Your task to perform on an android device: Go to sound settings Image 0: 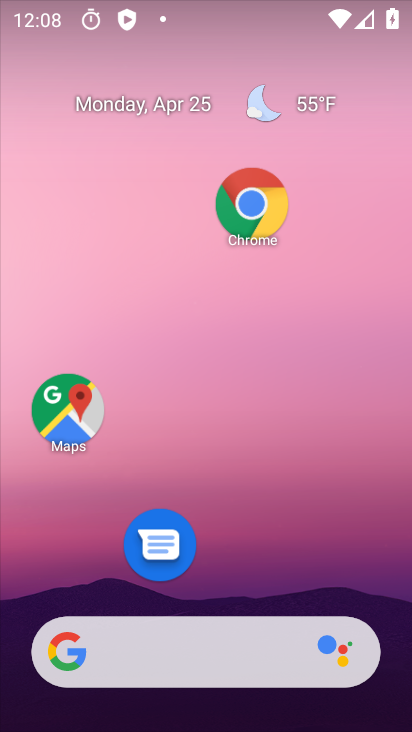
Step 0: drag from (269, 672) to (360, 185)
Your task to perform on an android device: Go to sound settings Image 1: 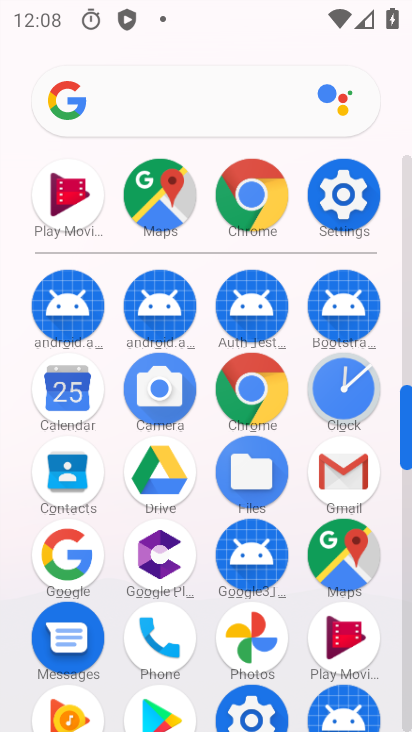
Step 1: click (336, 187)
Your task to perform on an android device: Go to sound settings Image 2: 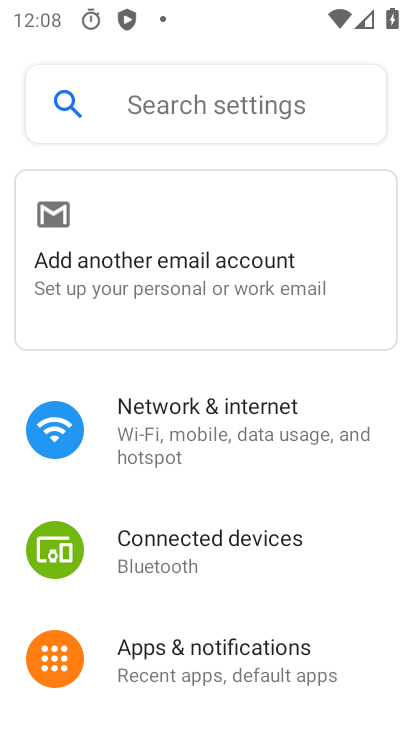
Step 2: click (245, 91)
Your task to perform on an android device: Go to sound settings Image 3: 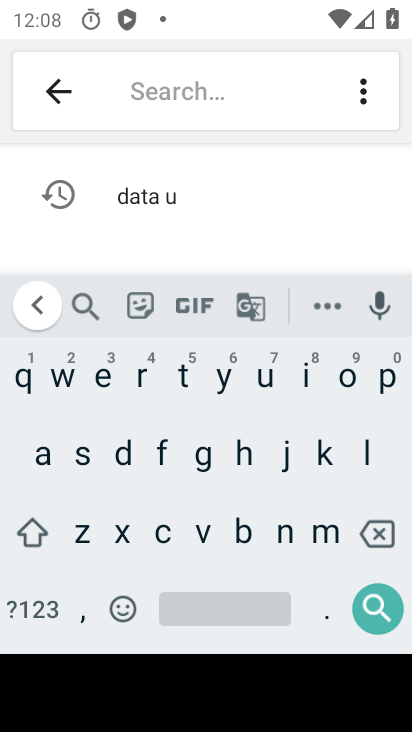
Step 3: click (80, 458)
Your task to perform on an android device: Go to sound settings Image 4: 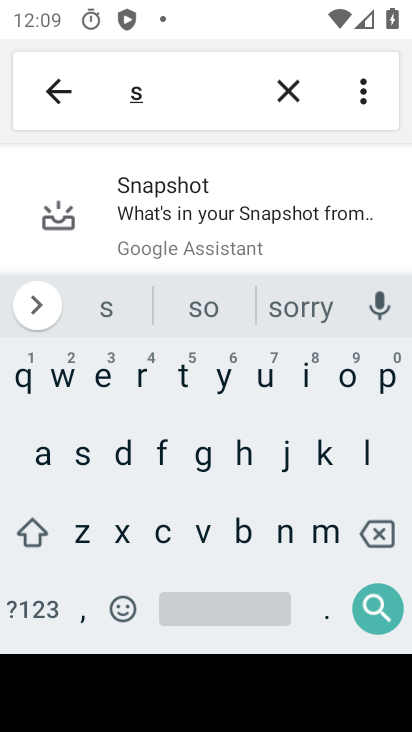
Step 4: click (343, 386)
Your task to perform on an android device: Go to sound settings Image 5: 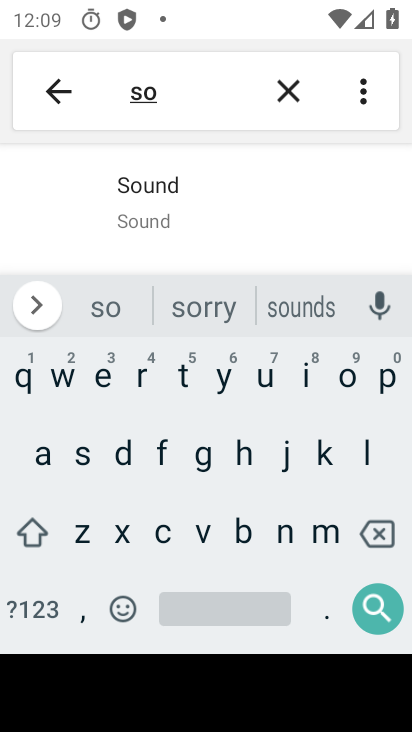
Step 5: click (155, 201)
Your task to perform on an android device: Go to sound settings Image 6: 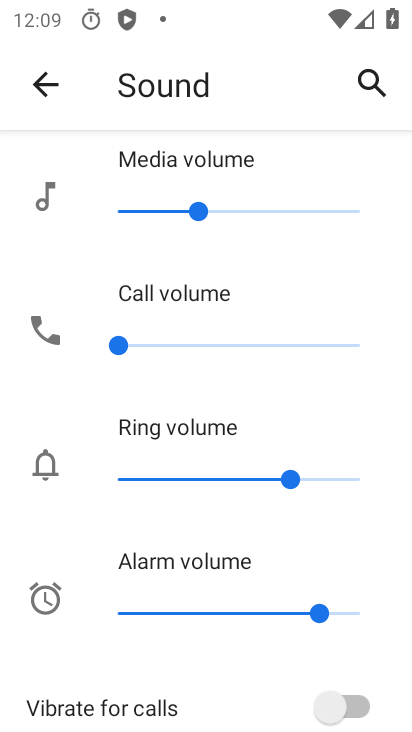
Step 6: task complete